Your task to perform on an android device: set an alarm Image 0: 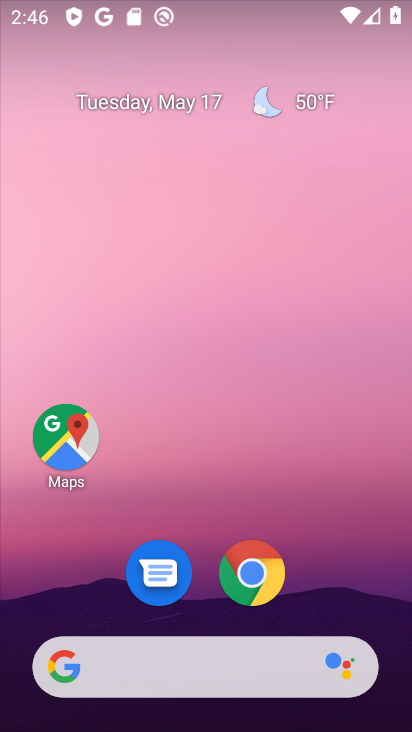
Step 0: drag from (344, 586) to (311, 172)
Your task to perform on an android device: set an alarm Image 1: 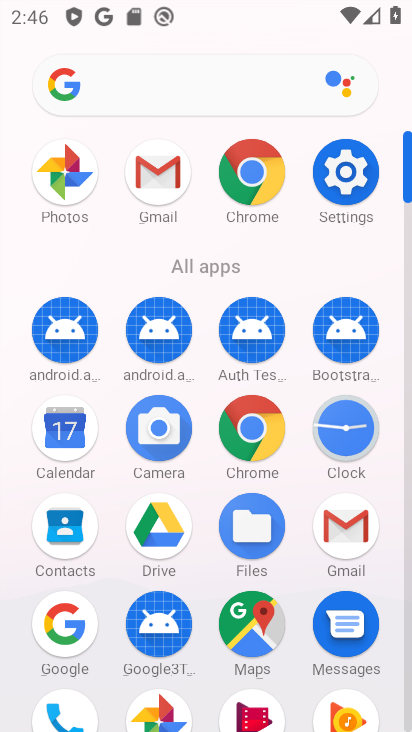
Step 1: click (329, 429)
Your task to perform on an android device: set an alarm Image 2: 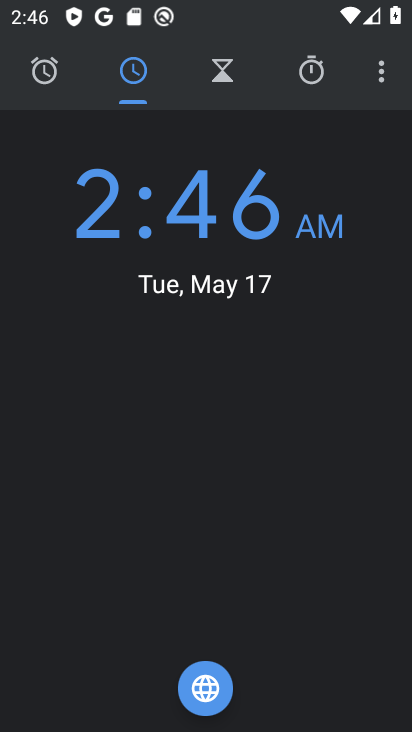
Step 2: click (39, 68)
Your task to perform on an android device: set an alarm Image 3: 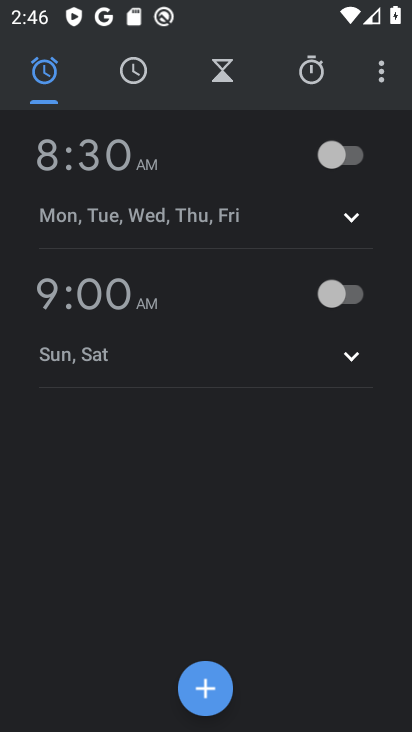
Step 3: click (215, 698)
Your task to perform on an android device: set an alarm Image 4: 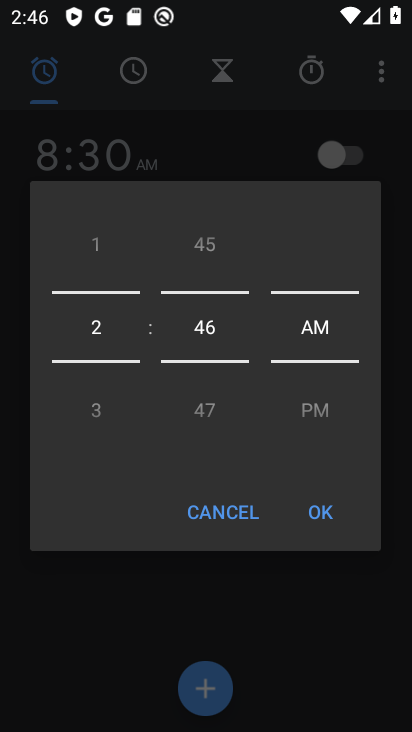
Step 4: click (337, 499)
Your task to perform on an android device: set an alarm Image 5: 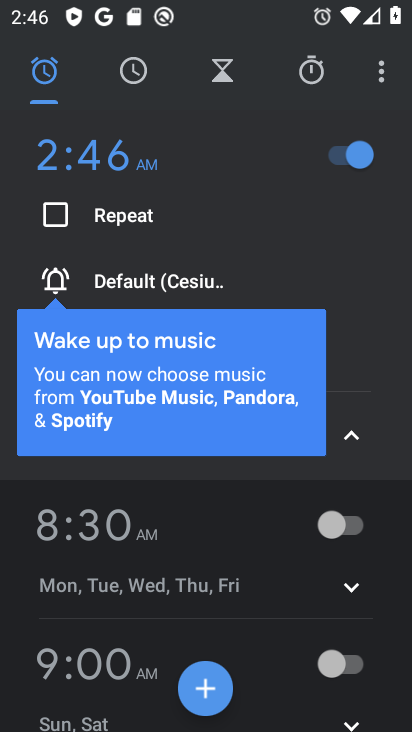
Step 5: task complete